Your task to perform on an android device: empty trash in the gmail app Image 0: 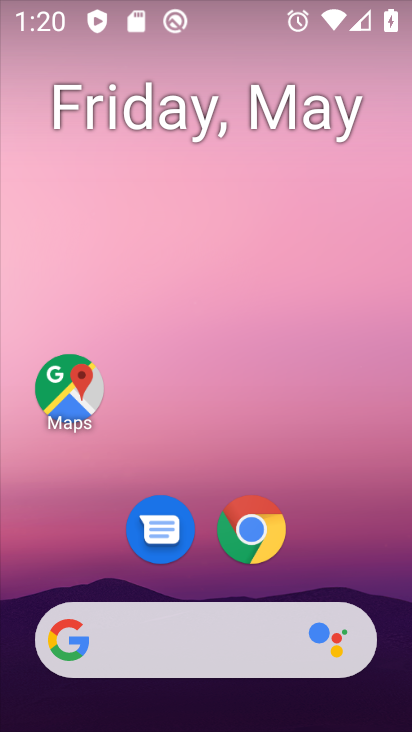
Step 0: drag from (386, 484) to (370, 332)
Your task to perform on an android device: empty trash in the gmail app Image 1: 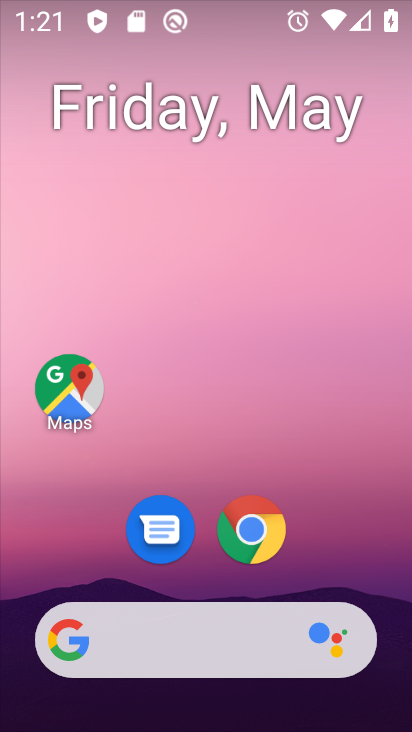
Step 1: drag from (398, 676) to (382, 192)
Your task to perform on an android device: empty trash in the gmail app Image 2: 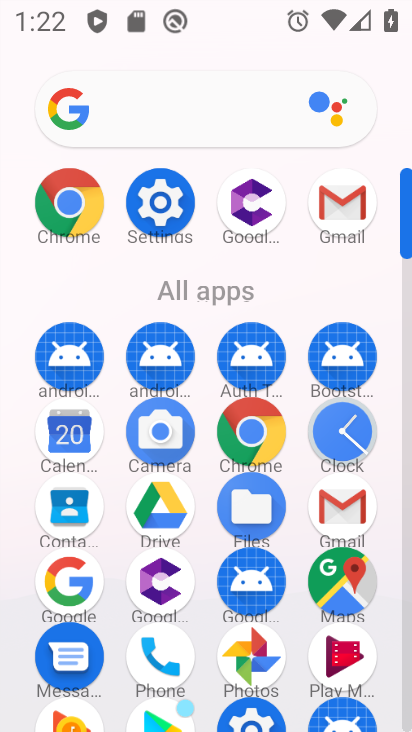
Step 2: click (330, 509)
Your task to perform on an android device: empty trash in the gmail app Image 3: 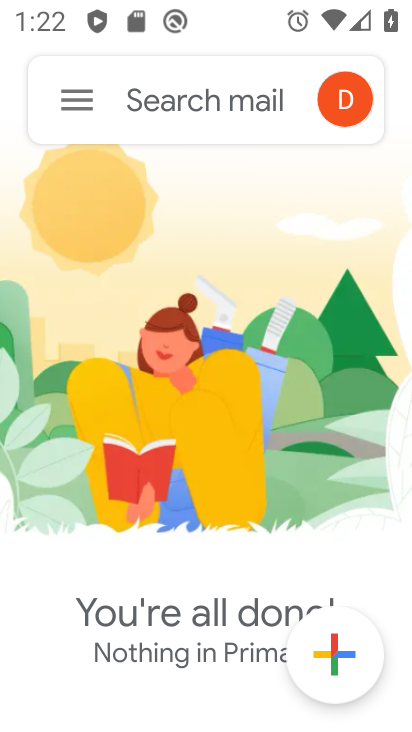
Step 3: click (66, 94)
Your task to perform on an android device: empty trash in the gmail app Image 4: 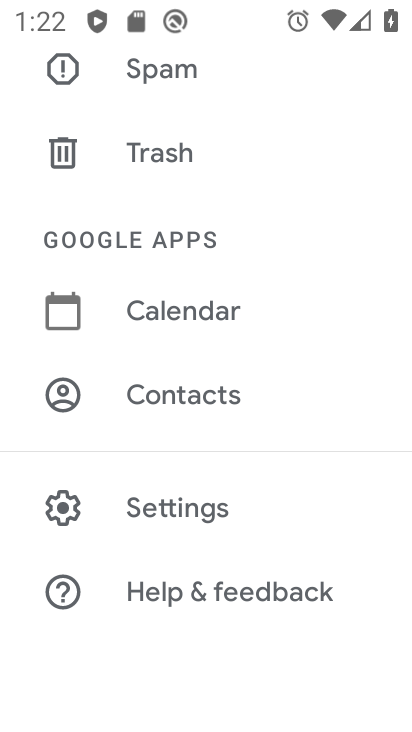
Step 4: click (151, 144)
Your task to perform on an android device: empty trash in the gmail app Image 5: 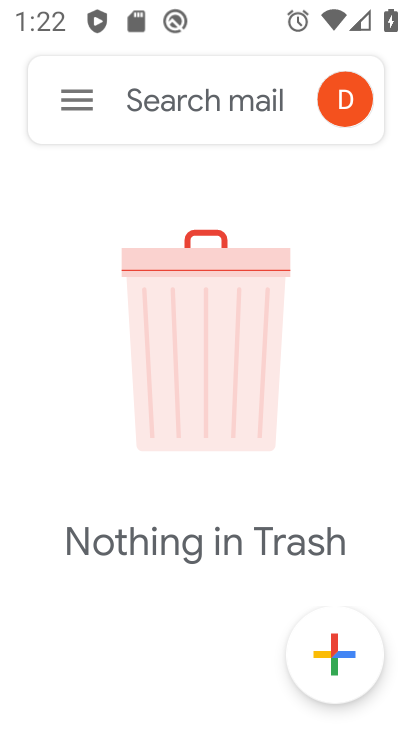
Step 5: task complete